Your task to perform on an android device: turn notification dots off Image 0: 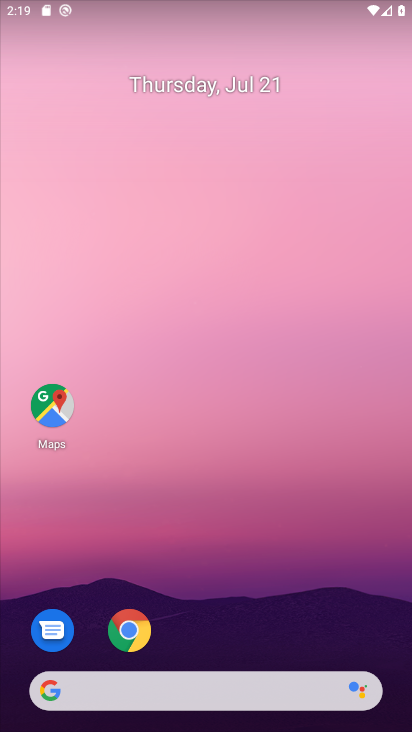
Step 0: drag from (243, 571) to (171, 351)
Your task to perform on an android device: turn notification dots off Image 1: 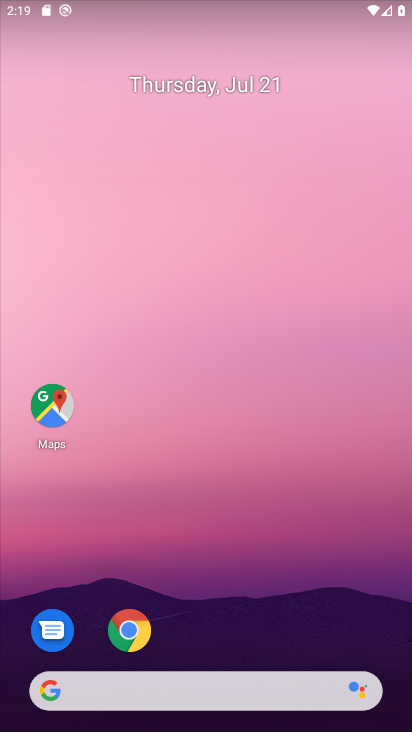
Step 1: drag from (210, 639) to (50, 96)
Your task to perform on an android device: turn notification dots off Image 2: 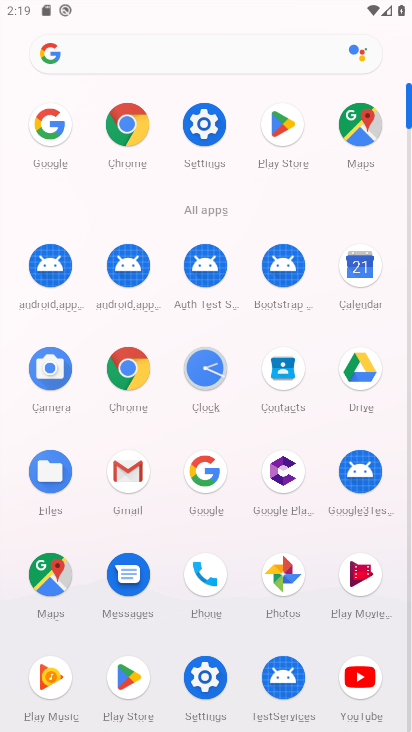
Step 2: click (201, 129)
Your task to perform on an android device: turn notification dots off Image 3: 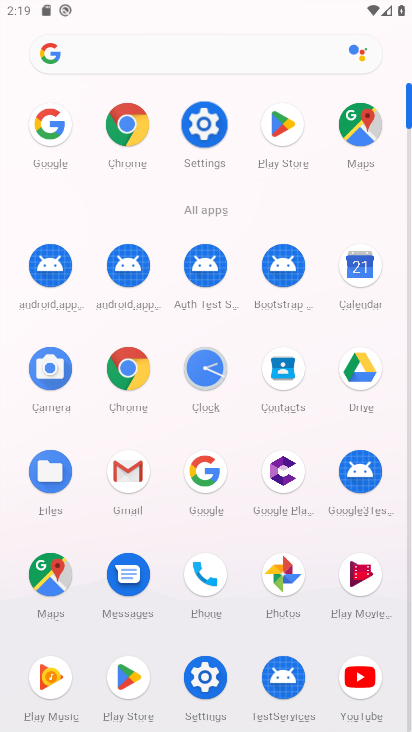
Step 3: click (198, 130)
Your task to perform on an android device: turn notification dots off Image 4: 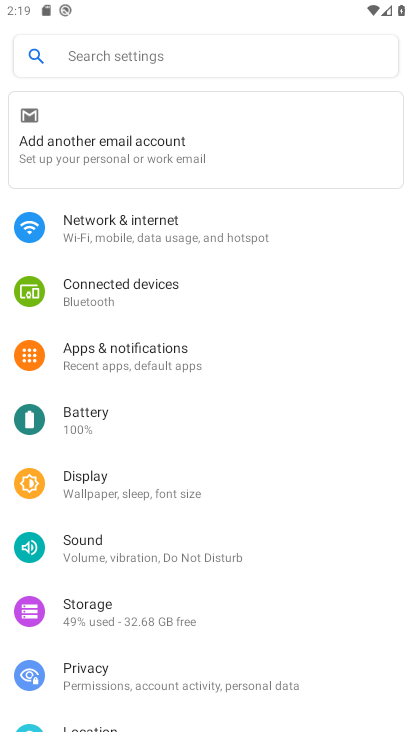
Step 4: click (120, 356)
Your task to perform on an android device: turn notification dots off Image 5: 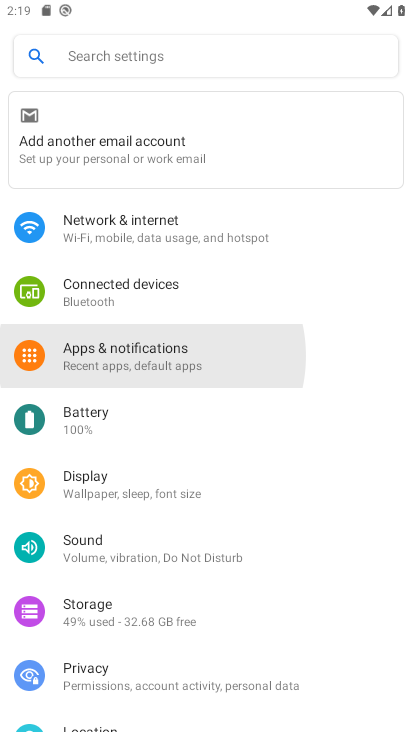
Step 5: click (120, 357)
Your task to perform on an android device: turn notification dots off Image 6: 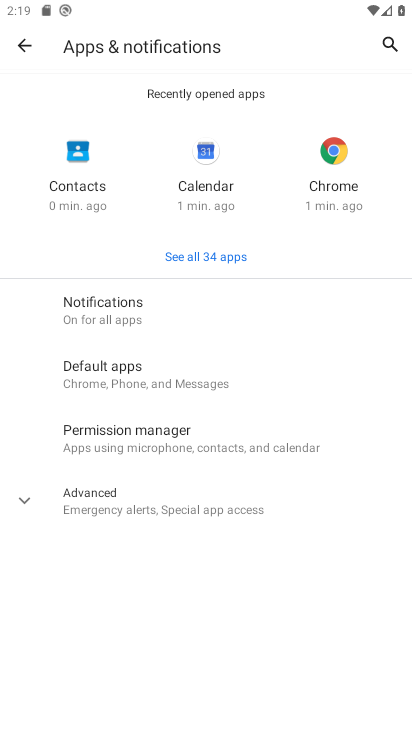
Step 6: click (101, 304)
Your task to perform on an android device: turn notification dots off Image 7: 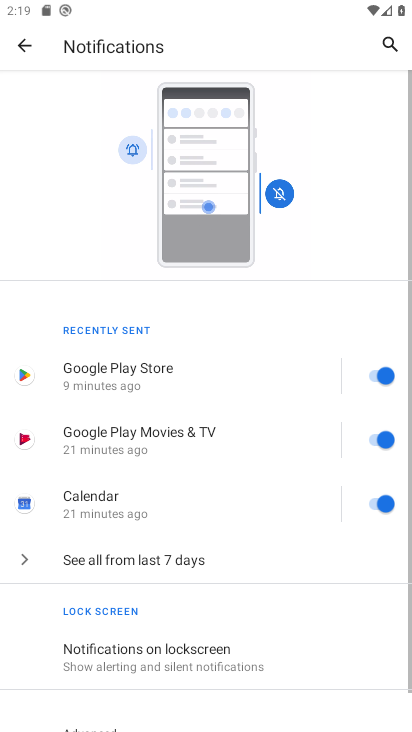
Step 7: drag from (239, 491) to (186, 217)
Your task to perform on an android device: turn notification dots off Image 8: 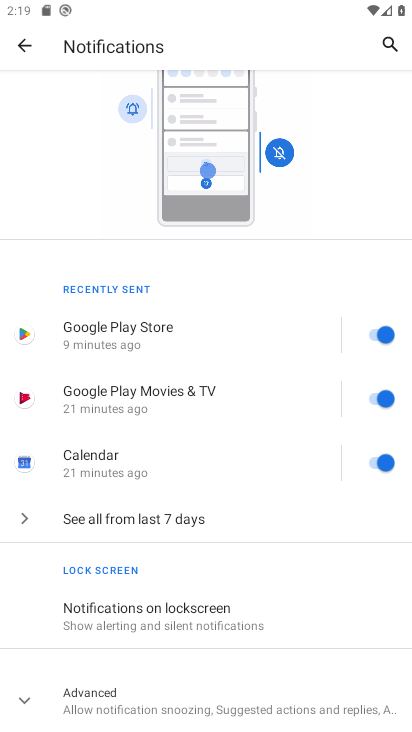
Step 8: drag from (211, 600) to (154, 376)
Your task to perform on an android device: turn notification dots off Image 9: 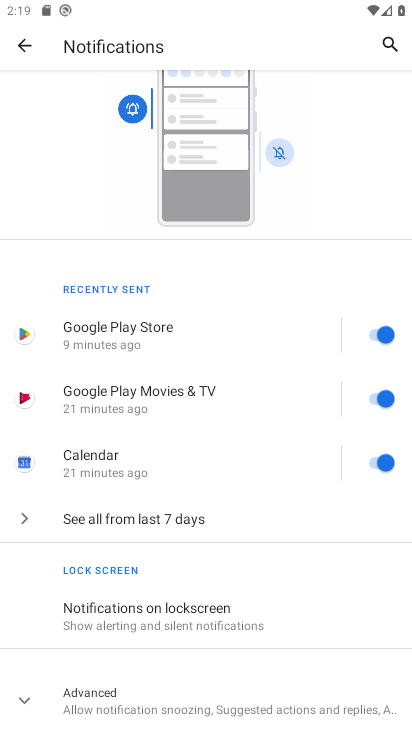
Step 9: click (107, 690)
Your task to perform on an android device: turn notification dots off Image 10: 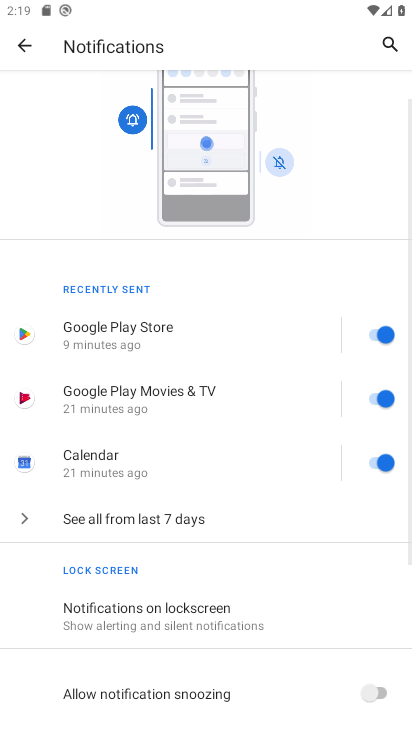
Step 10: drag from (164, 502) to (151, 310)
Your task to perform on an android device: turn notification dots off Image 11: 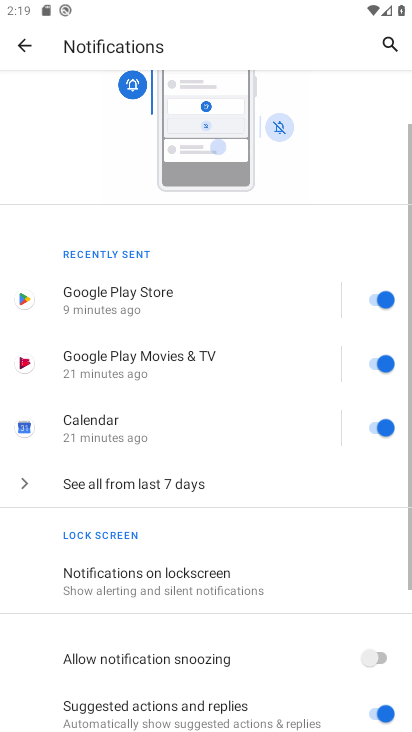
Step 11: drag from (180, 449) to (183, 373)
Your task to perform on an android device: turn notification dots off Image 12: 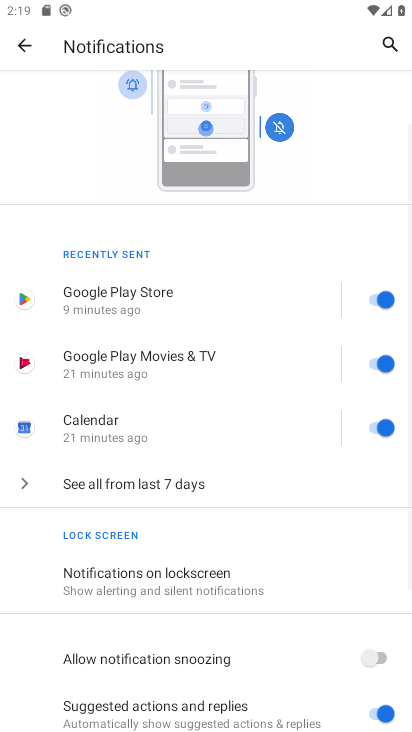
Step 12: drag from (265, 553) to (255, 262)
Your task to perform on an android device: turn notification dots off Image 13: 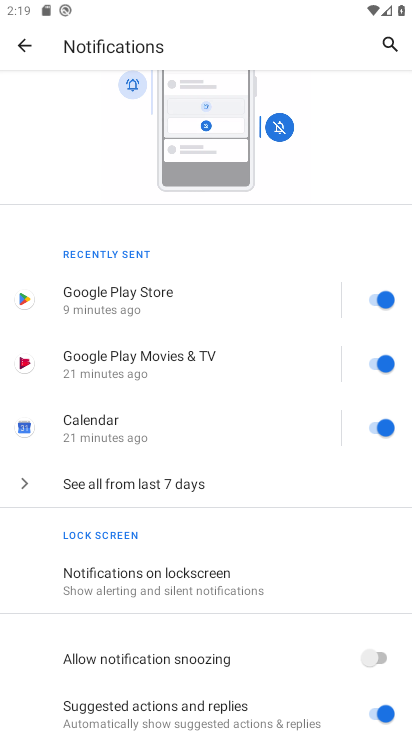
Step 13: drag from (272, 535) to (283, 245)
Your task to perform on an android device: turn notification dots off Image 14: 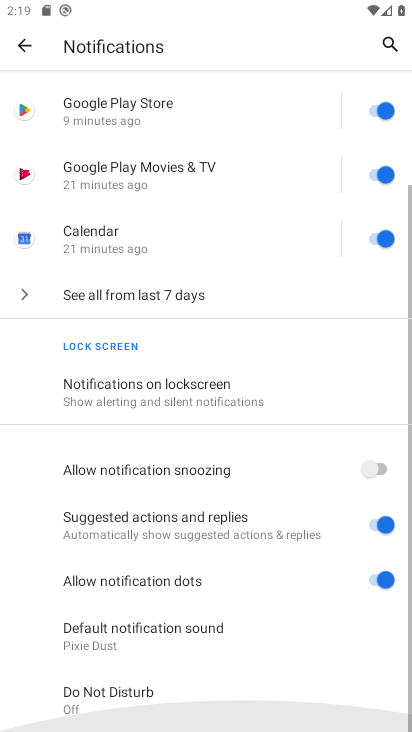
Step 14: drag from (279, 522) to (254, 247)
Your task to perform on an android device: turn notification dots off Image 15: 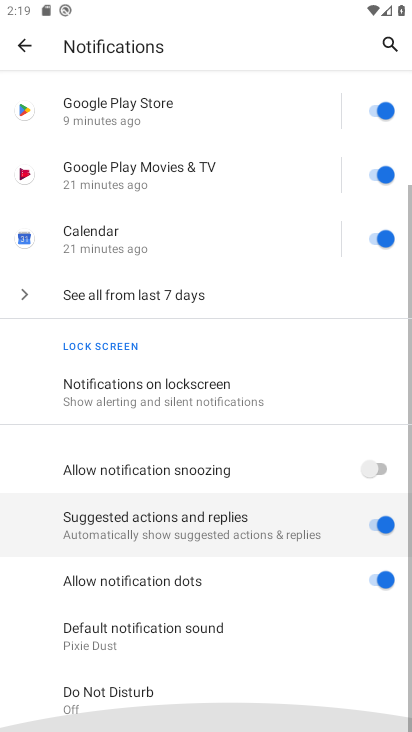
Step 15: drag from (312, 604) to (304, 324)
Your task to perform on an android device: turn notification dots off Image 16: 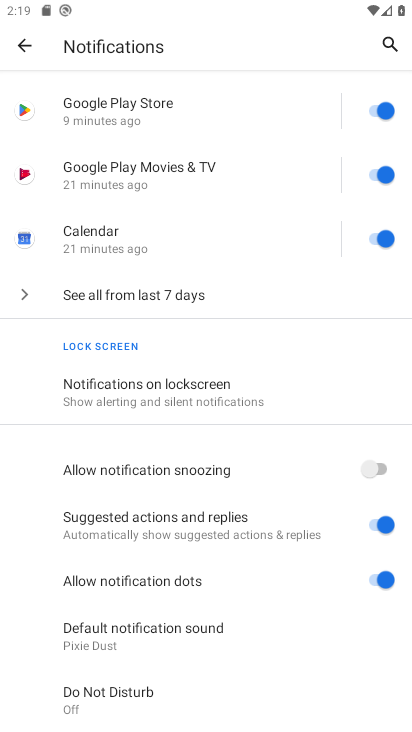
Step 16: click (374, 583)
Your task to perform on an android device: turn notification dots off Image 17: 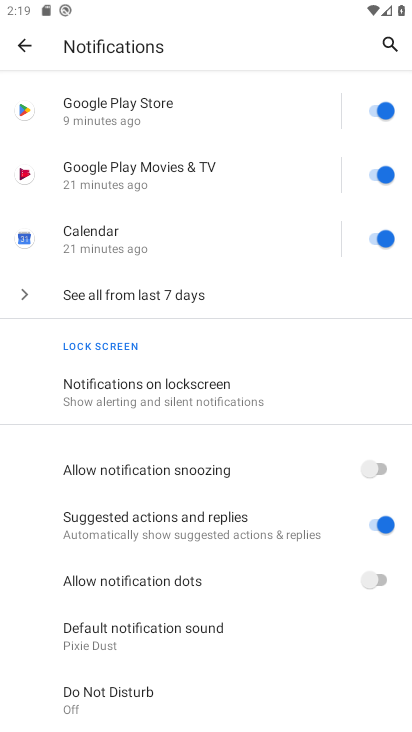
Step 17: task complete